Your task to perform on an android device: change text size in settings app Image 0: 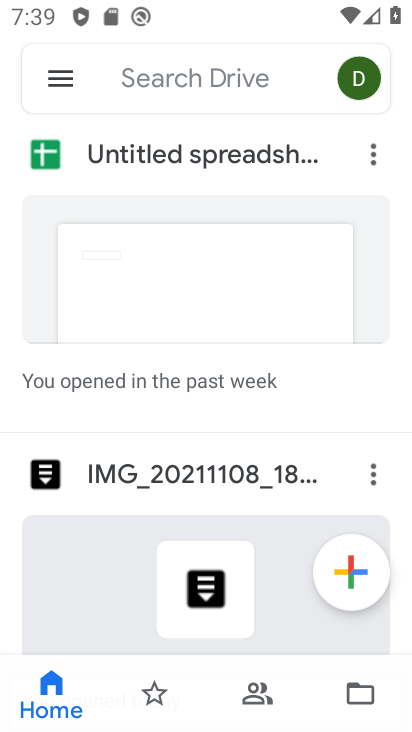
Step 0: press home button
Your task to perform on an android device: change text size in settings app Image 1: 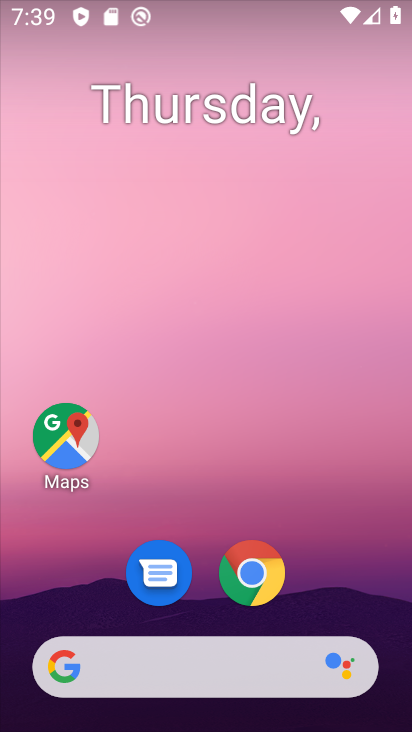
Step 1: drag from (332, 585) to (317, 54)
Your task to perform on an android device: change text size in settings app Image 2: 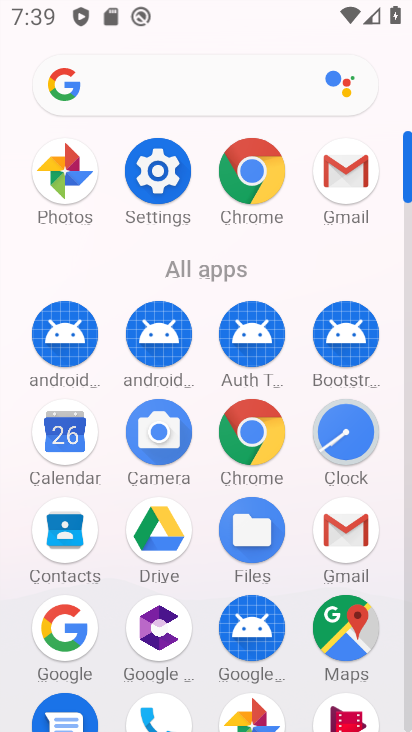
Step 2: click (145, 190)
Your task to perform on an android device: change text size in settings app Image 3: 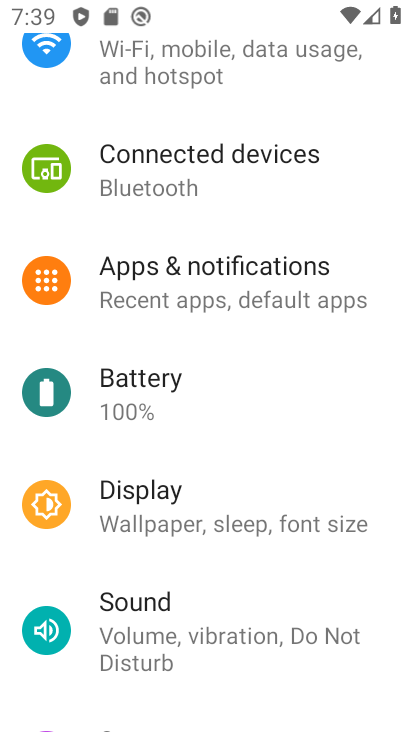
Step 3: drag from (220, 621) to (229, 211)
Your task to perform on an android device: change text size in settings app Image 4: 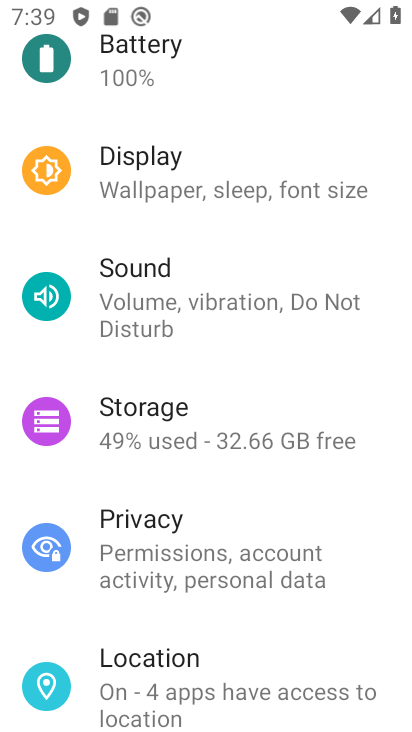
Step 4: click (229, 200)
Your task to perform on an android device: change text size in settings app Image 5: 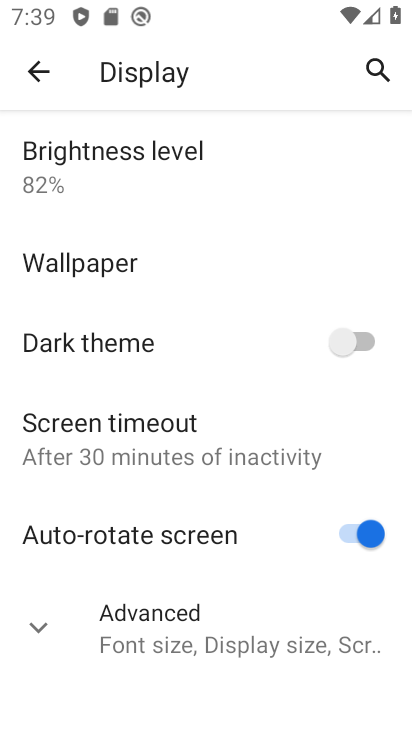
Step 5: click (180, 614)
Your task to perform on an android device: change text size in settings app Image 6: 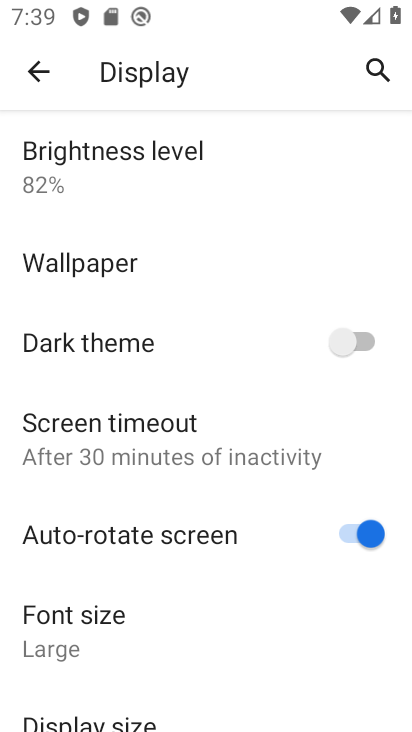
Step 6: click (40, 654)
Your task to perform on an android device: change text size in settings app Image 7: 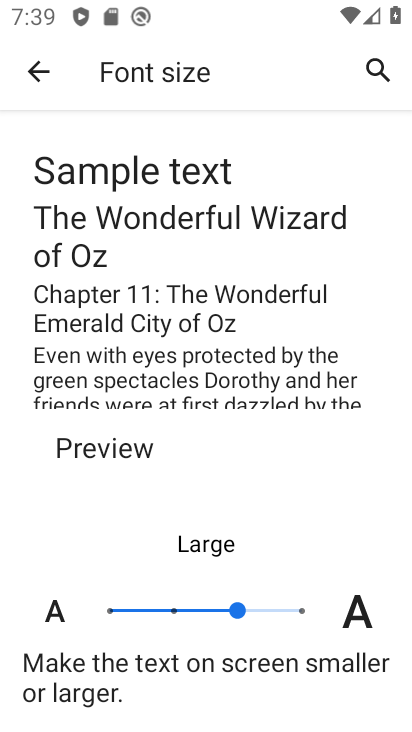
Step 7: click (110, 610)
Your task to perform on an android device: change text size in settings app Image 8: 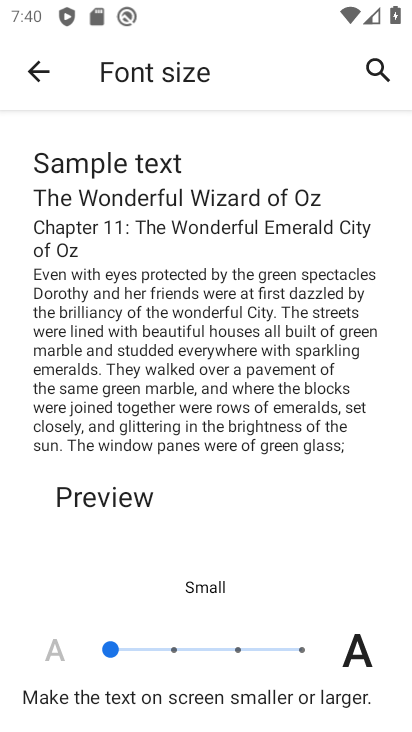
Step 8: task complete